Your task to perform on an android device: Go to Google maps Image 0: 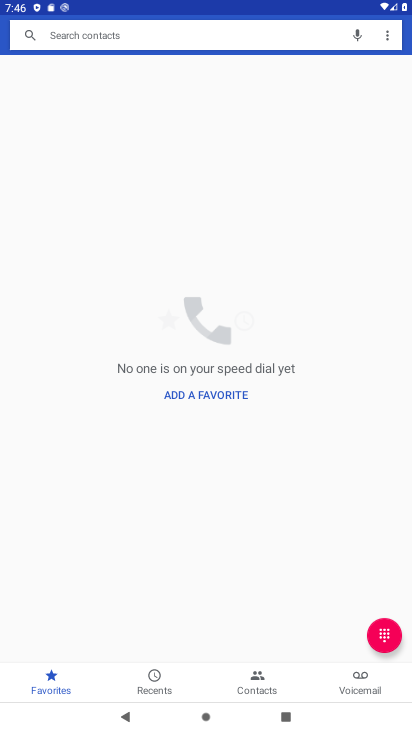
Step 0: press back button
Your task to perform on an android device: Go to Google maps Image 1: 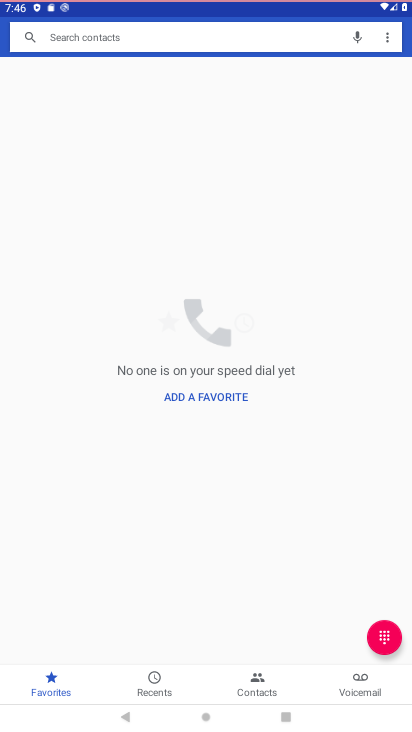
Step 1: press back button
Your task to perform on an android device: Go to Google maps Image 2: 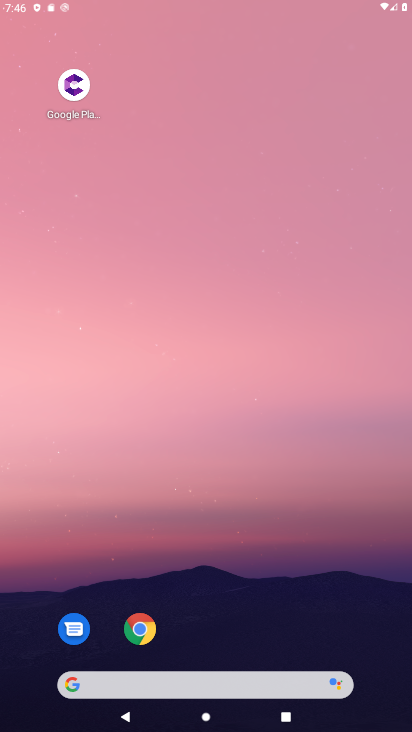
Step 2: press back button
Your task to perform on an android device: Go to Google maps Image 3: 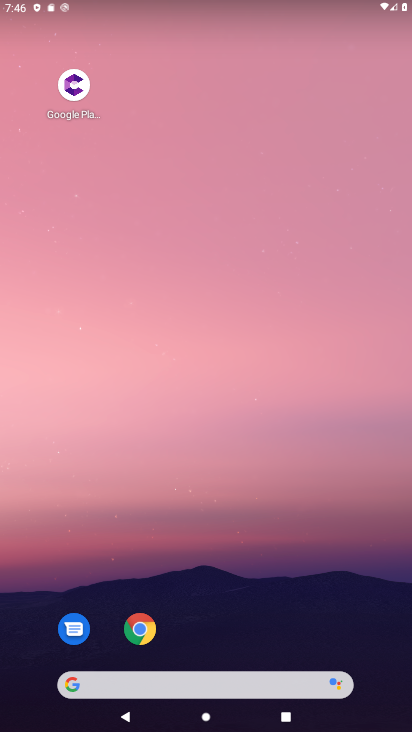
Step 3: drag from (278, 614) to (233, 120)
Your task to perform on an android device: Go to Google maps Image 4: 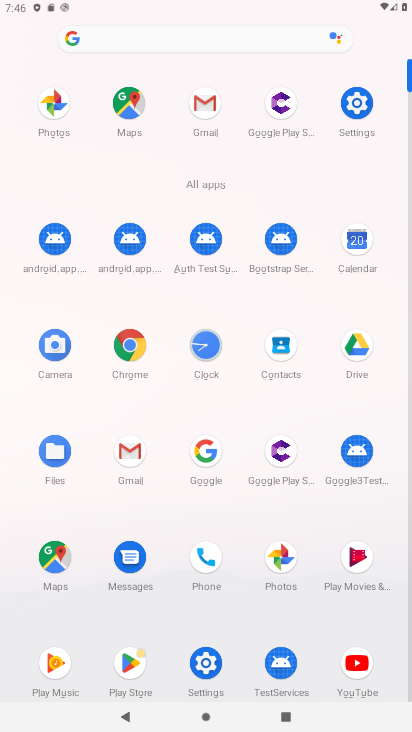
Step 4: drag from (340, 485) to (310, 95)
Your task to perform on an android device: Go to Google maps Image 5: 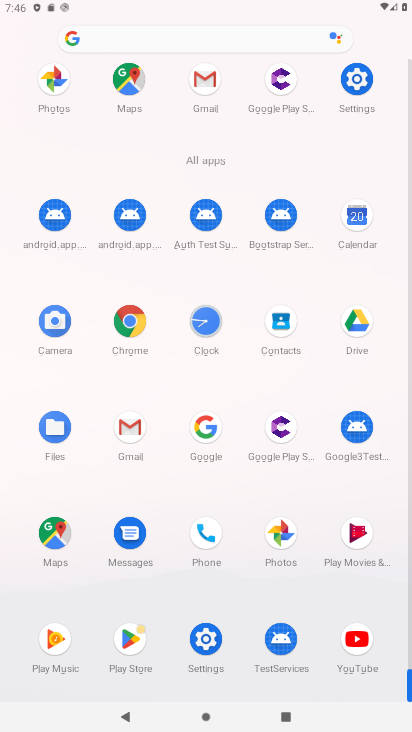
Step 5: click (64, 519)
Your task to perform on an android device: Go to Google maps Image 6: 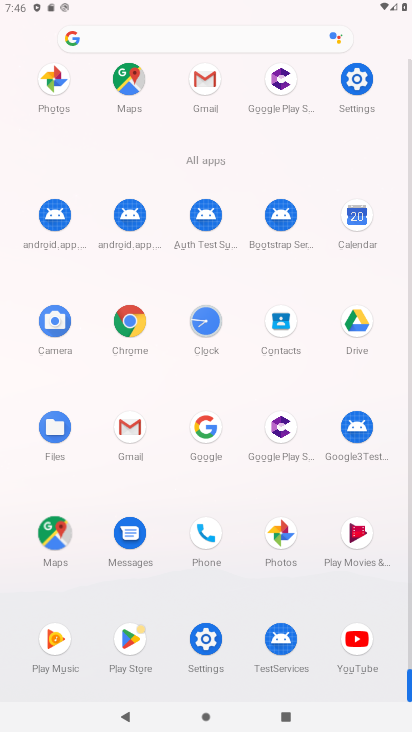
Step 6: click (64, 519)
Your task to perform on an android device: Go to Google maps Image 7: 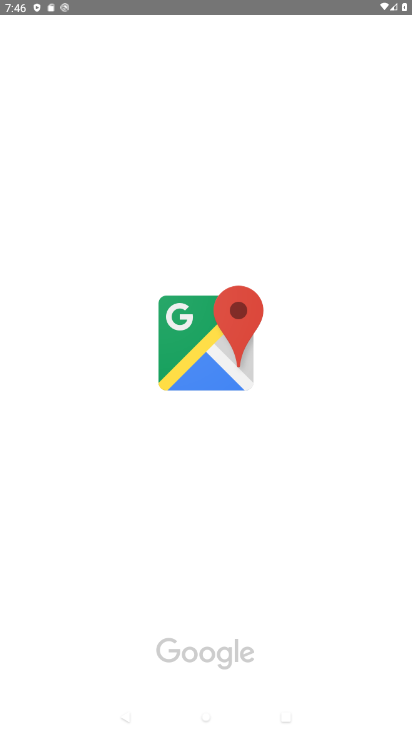
Step 7: click (65, 520)
Your task to perform on an android device: Go to Google maps Image 8: 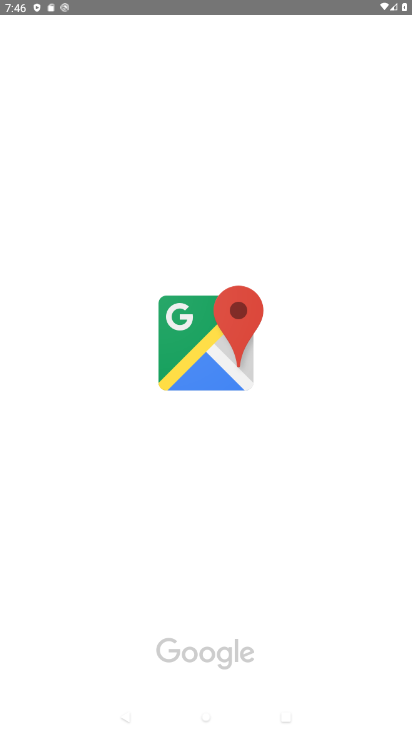
Step 8: click (65, 520)
Your task to perform on an android device: Go to Google maps Image 9: 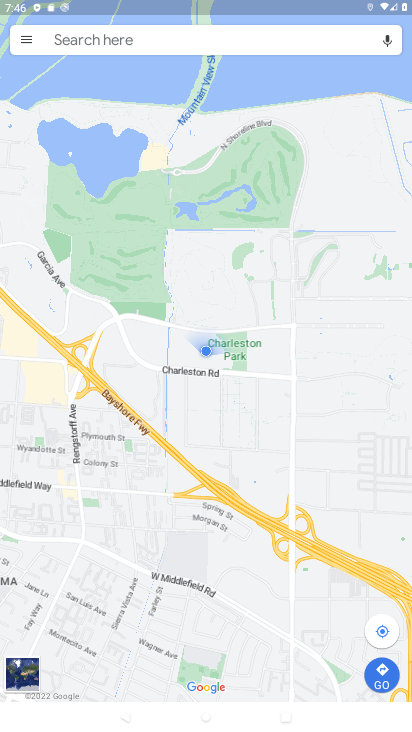
Step 9: task complete